Your task to perform on an android device: see tabs open on other devices in the chrome app Image 0: 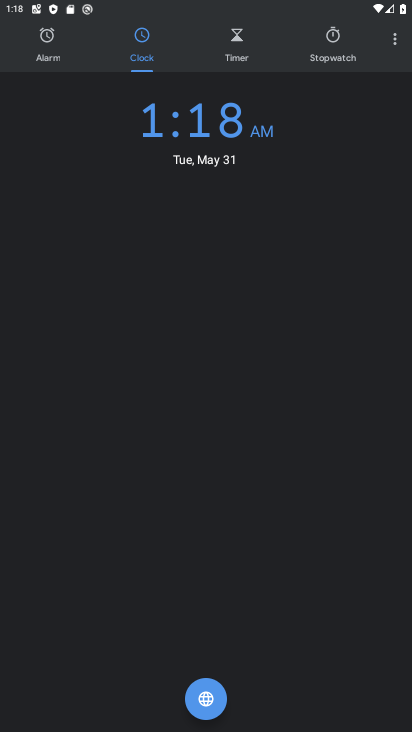
Step 0: click (332, 41)
Your task to perform on an android device: see tabs open on other devices in the chrome app Image 1: 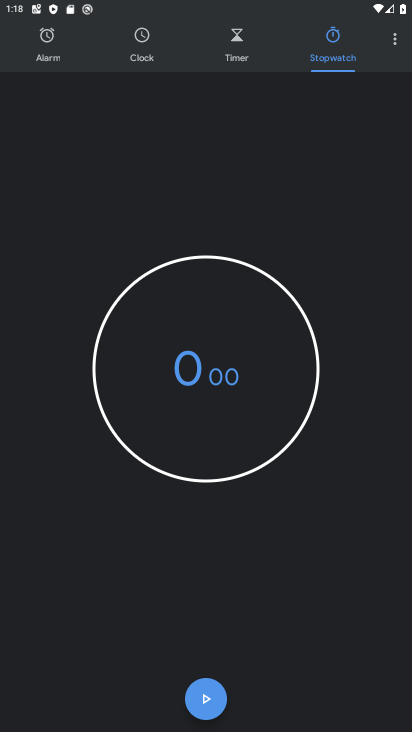
Step 1: press home button
Your task to perform on an android device: see tabs open on other devices in the chrome app Image 2: 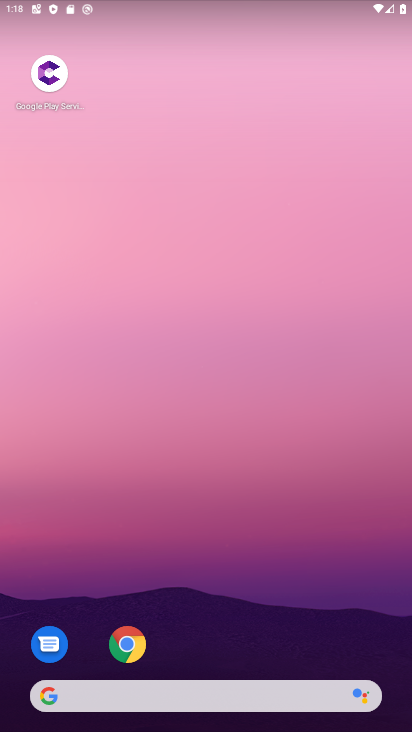
Step 2: click (138, 647)
Your task to perform on an android device: see tabs open on other devices in the chrome app Image 3: 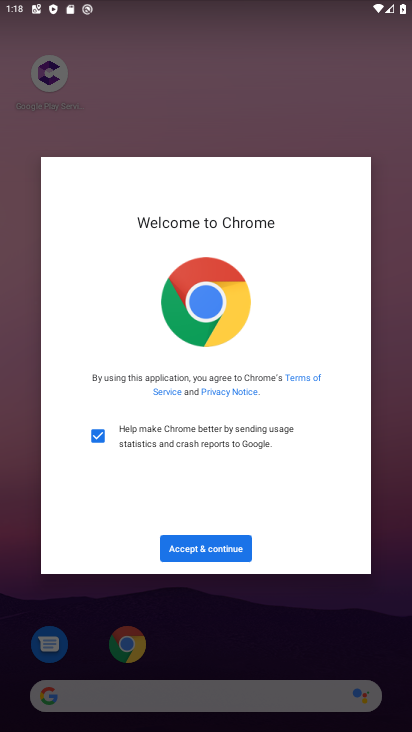
Step 3: click (229, 545)
Your task to perform on an android device: see tabs open on other devices in the chrome app Image 4: 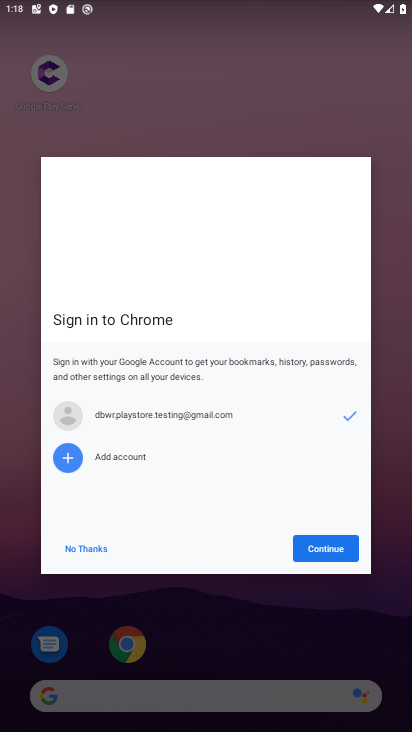
Step 4: click (296, 544)
Your task to perform on an android device: see tabs open on other devices in the chrome app Image 5: 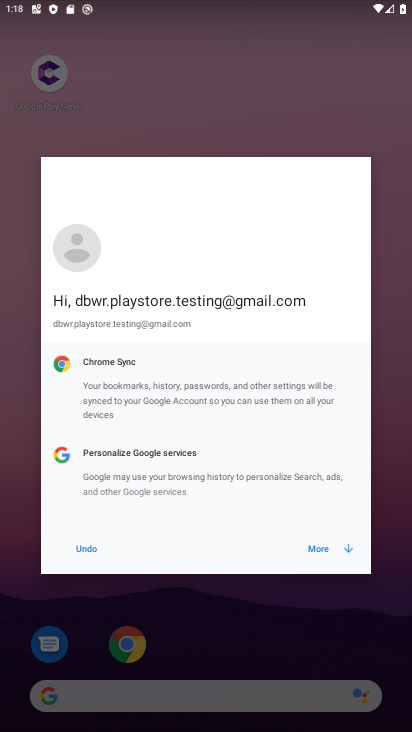
Step 5: click (312, 545)
Your task to perform on an android device: see tabs open on other devices in the chrome app Image 6: 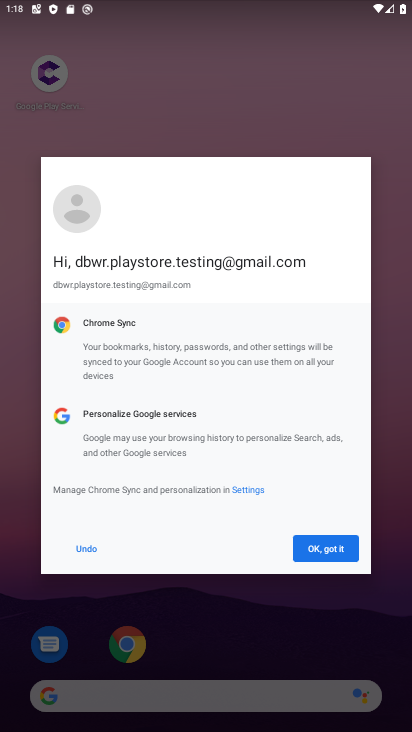
Step 6: click (312, 545)
Your task to perform on an android device: see tabs open on other devices in the chrome app Image 7: 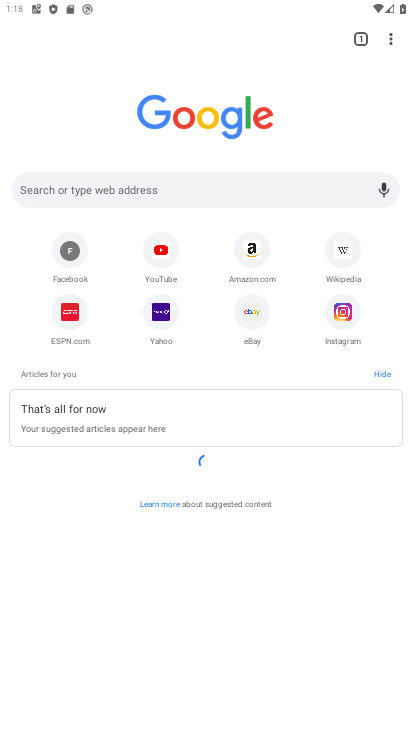
Step 7: click (394, 38)
Your task to perform on an android device: see tabs open on other devices in the chrome app Image 8: 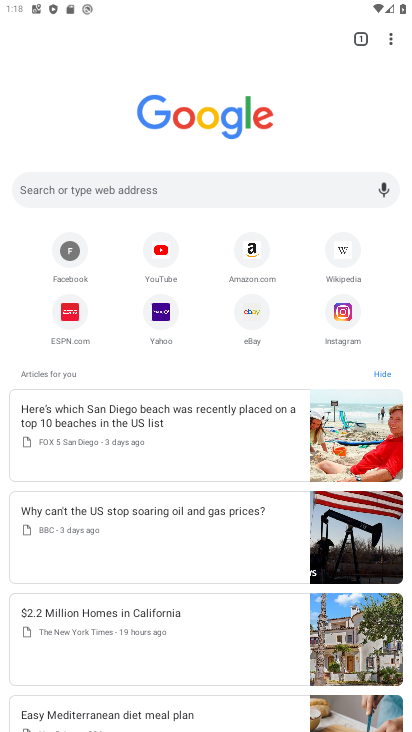
Step 8: click (388, 38)
Your task to perform on an android device: see tabs open on other devices in the chrome app Image 9: 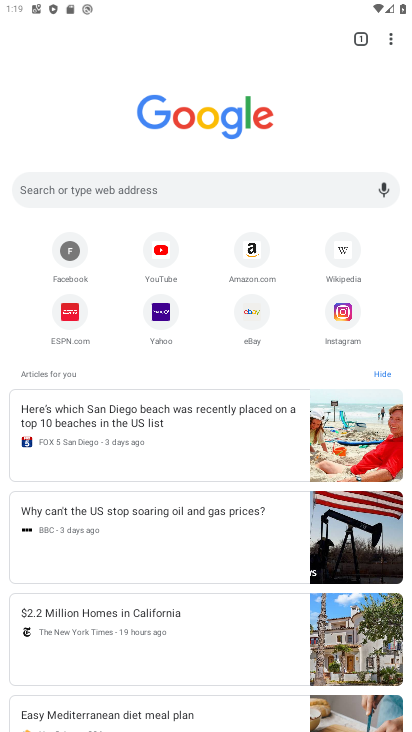
Step 9: click (388, 38)
Your task to perform on an android device: see tabs open on other devices in the chrome app Image 10: 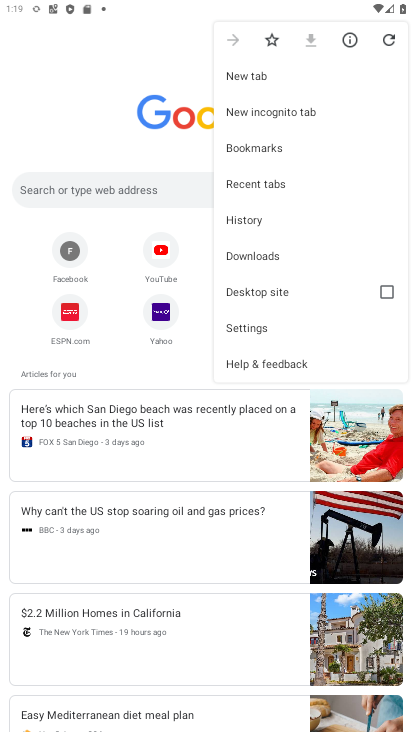
Step 10: click (248, 179)
Your task to perform on an android device: see tabs open on other devices in the chrome app Image 11: 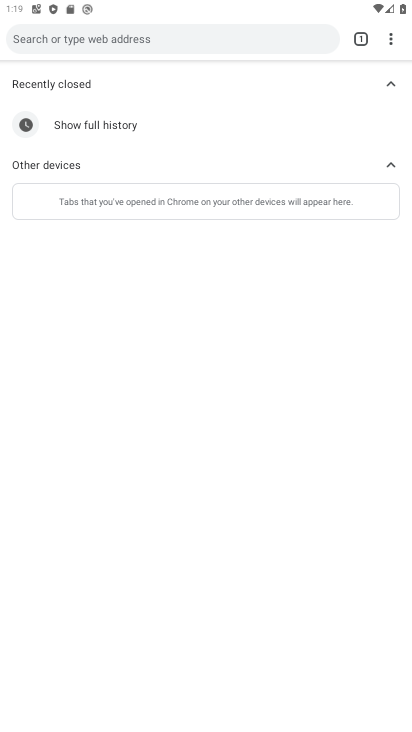
Step 11: task complete